Your task to perform on an android device: create a new album in the google photos Image 0: 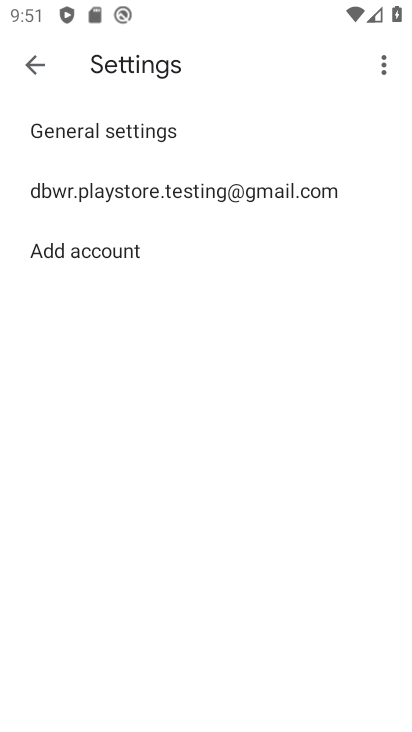
Step 0: press home button
Your task to perform on an android device: create a new album in the google photos Image 1: 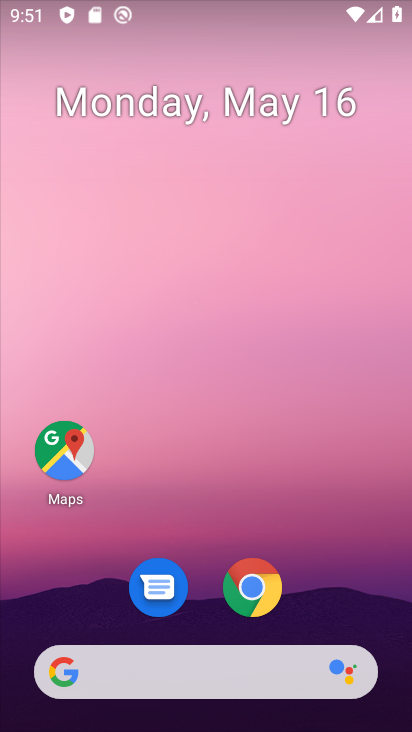
Step 1: drag from (200, 634) to (108, 26)
Your task to perform on an android device: create a new album in the google photos Image 2: 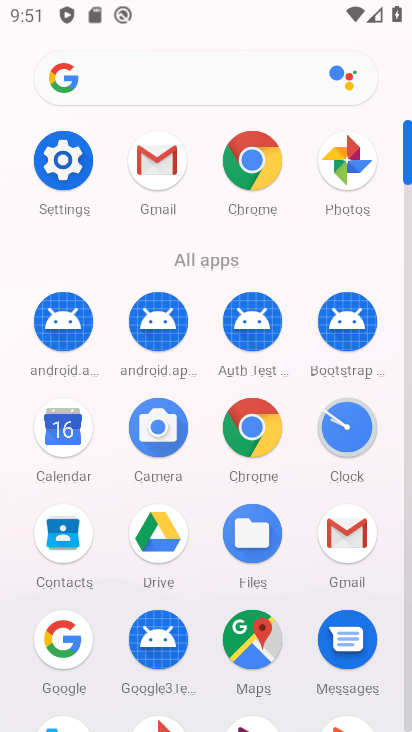
Step 2: click (340, 160)
Your task to perform on an android device: create a new album in the google photos Image 3: 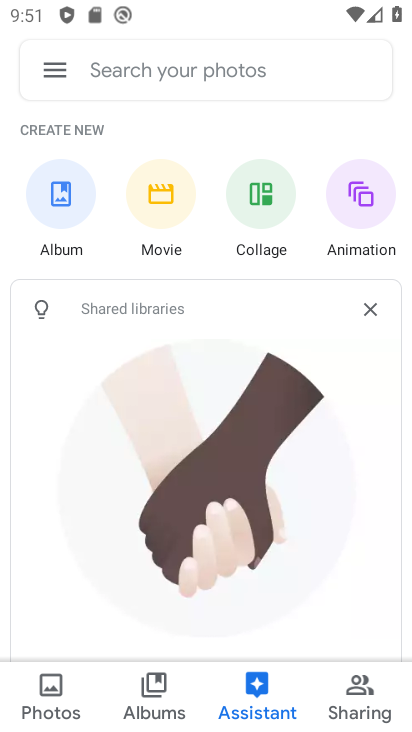
Step 3: click (158, 693)
Your task to perform on an android device: create a new album in the google photos Image 4: 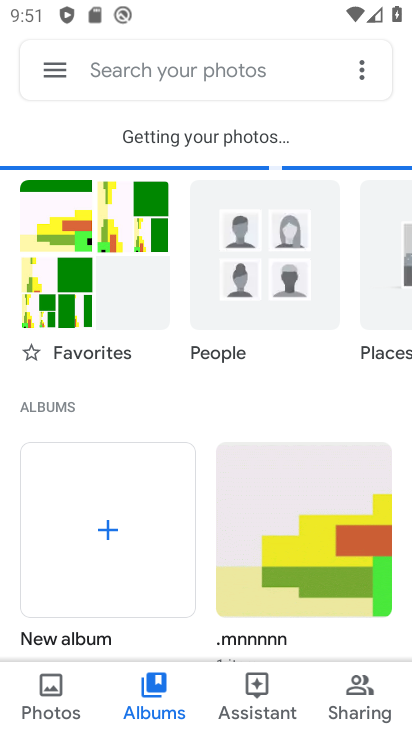
Step 4: click (110, 548)
Your task to perform on an android device: create a new album in the google photos Image 5: 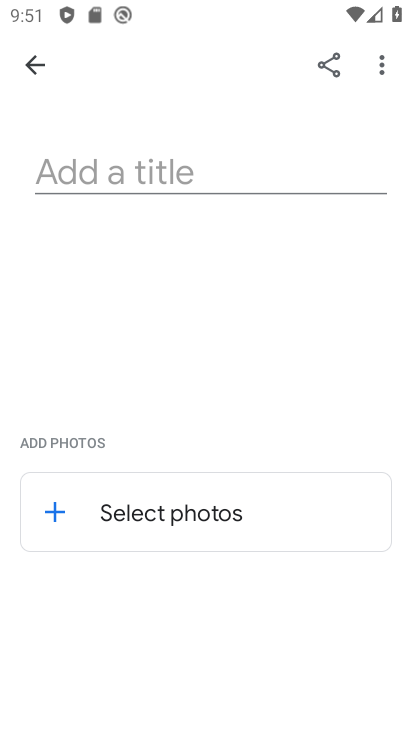
Step 5: type "bh"
Your task to perform on an android device: create a new album in the google photos Image 6: 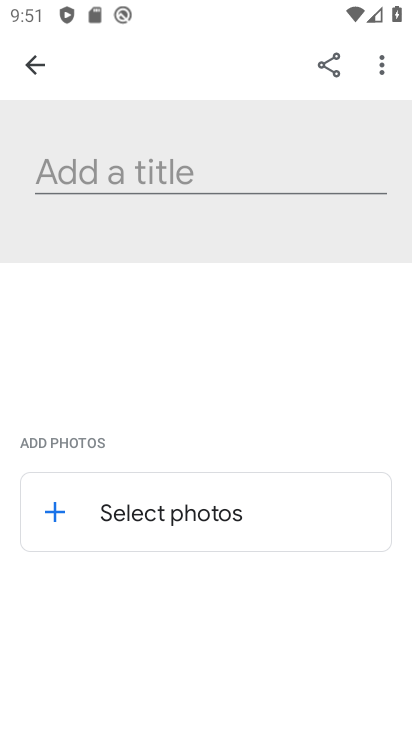
Step 6: click (197, 507)
Your task to perform on an android device: create a new album in the google photos Image 7: 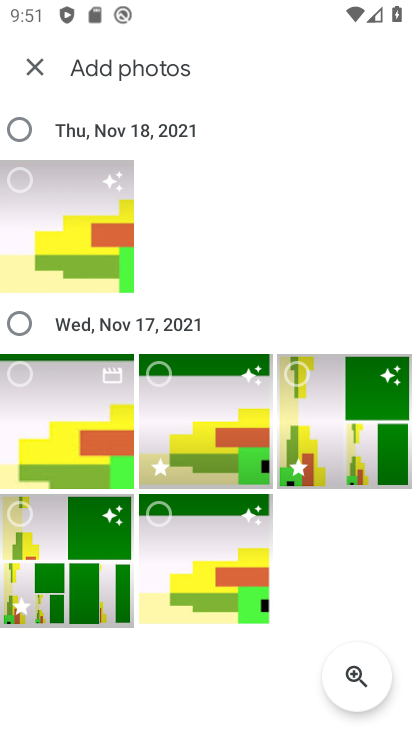
Step 7: click (199, 497)
Your task to perform on an android device: create a new album in the google photos Image 8: 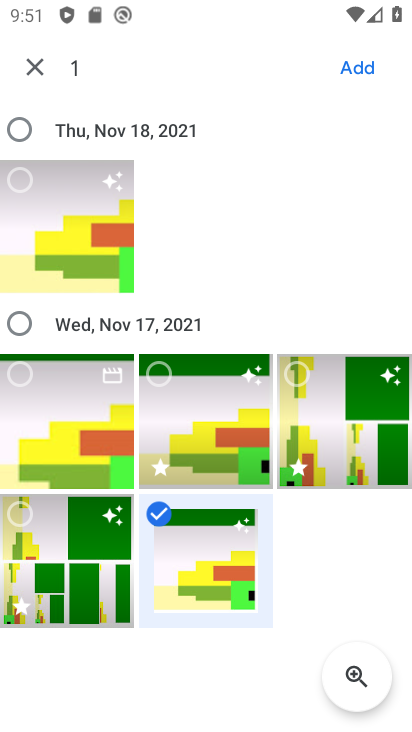
Step 8: click (337, 70)
Your task to perform on an android device: create a new album in the google photos Image 9: 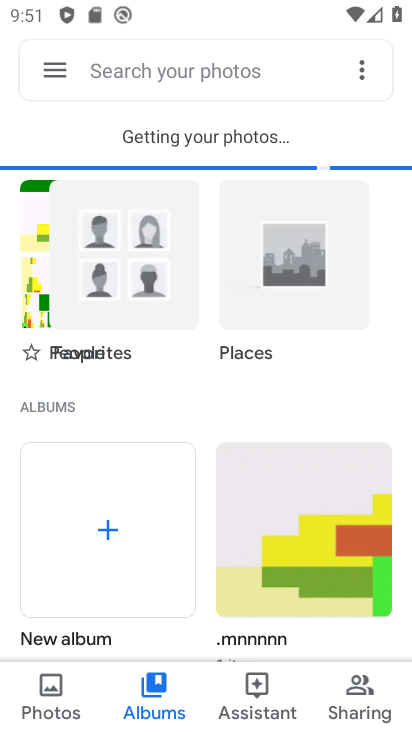
Step 9: task complete